Your task to perform on an android device: uninstall "AliExpress" Image 0: 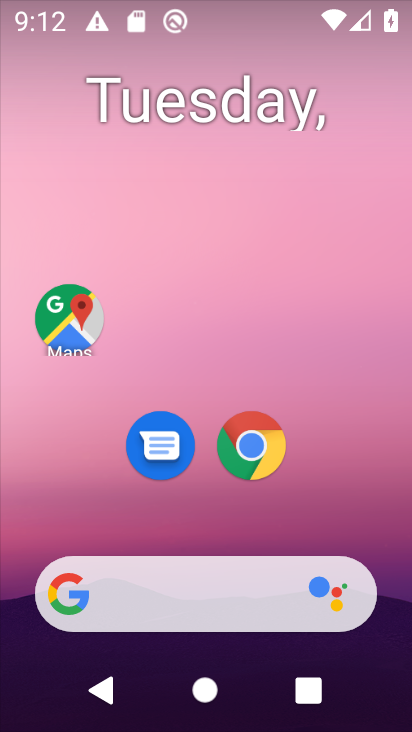
Step 0: drag from (206, 523) to (197, 191)
Your task to perform on an android device: uninstall "AliExpress" Image 1: 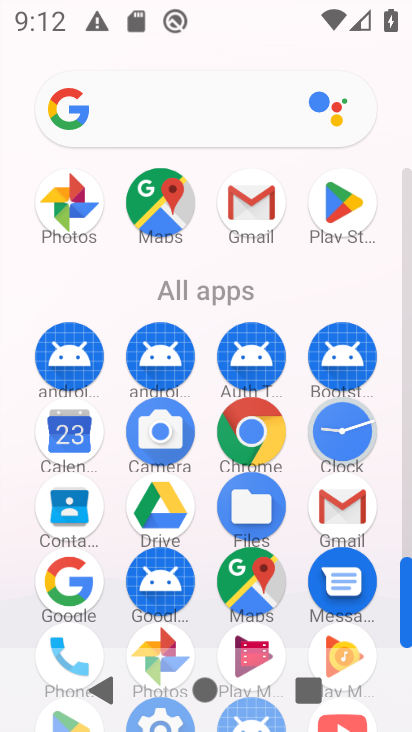
Step 1: click (335, 203)
Your task to perform on an android device: uninstall "AliExpress" Image 2: 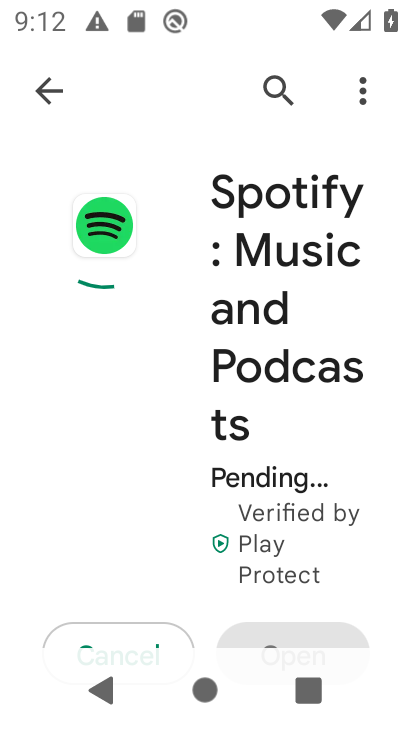
Step 2: click (58, 88)
Your task to perform on an android device: uninstall "AliExpress" Image 3: 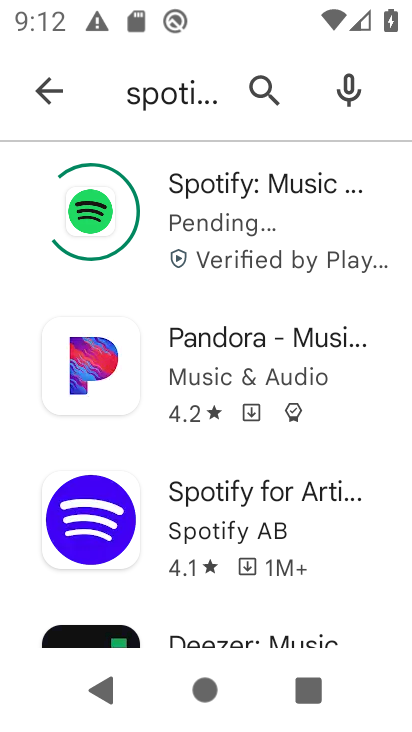
Step 3: click (58, 92)
Your task to perform on an android device: uninstall "AliExpress" Image 4: 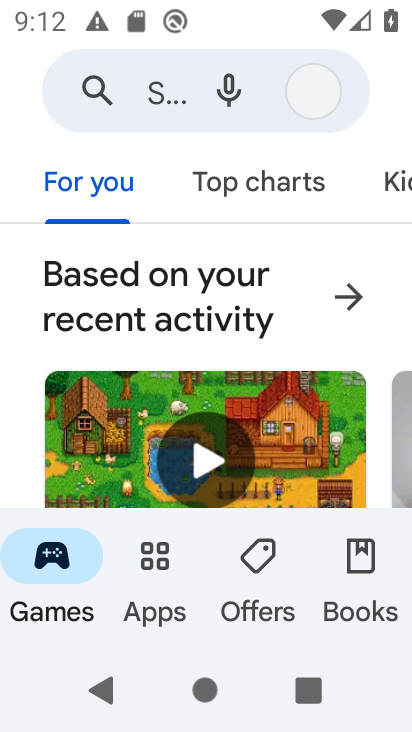
Step 4: click (109, 82)
Your task to perform on an android device: uninstall "AliExpress" Image 5: 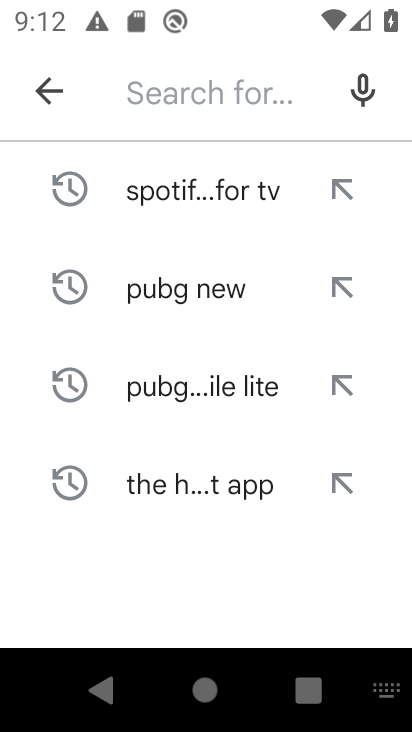
Step 5: type "AliExpress "
Your task to perform on an android device: uninstall "AliExpress" Image 6: 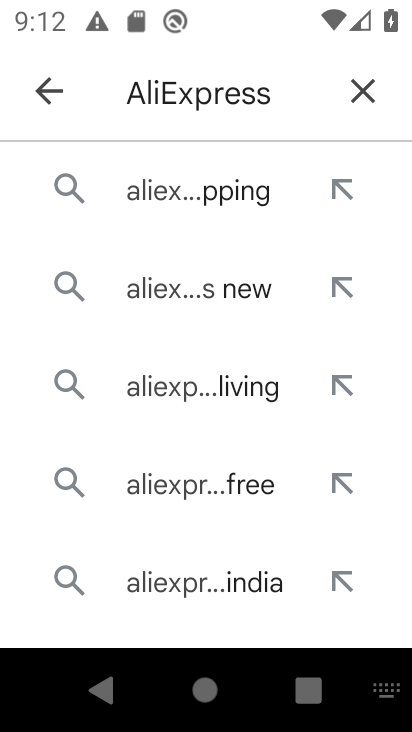
Step 6: click (158, 192)
Your task to perform on an android device: uninstall "AliExpress" Image 7: 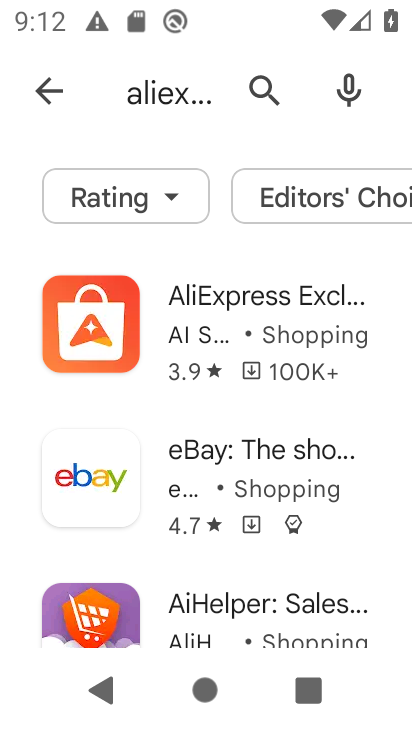
Step 7: click (181, 307)
Your task to perform on an android device: uninstall "AliExpress" Image 8: 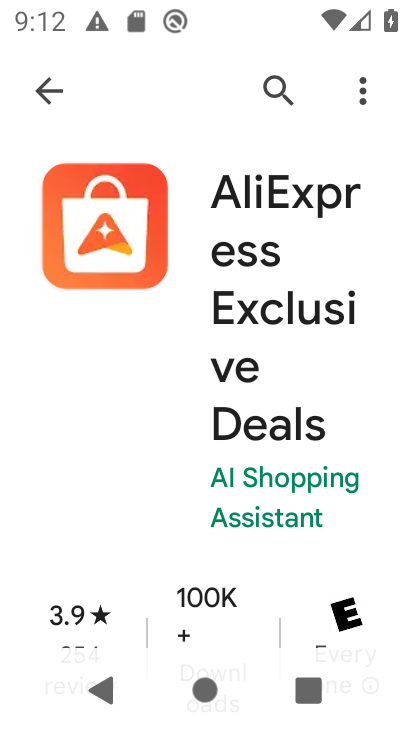
Step 8: drag from (114, 557) to (176, 161)
Your task to perform on an android device: uninstall "AliExpress" Image 9: 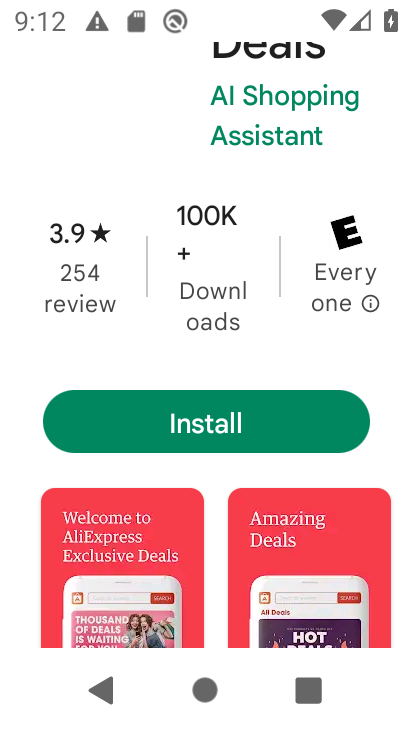
Step 9: click (173, 411)
Your task to perform on an android device: uninstall "AliExpress" Image 10: 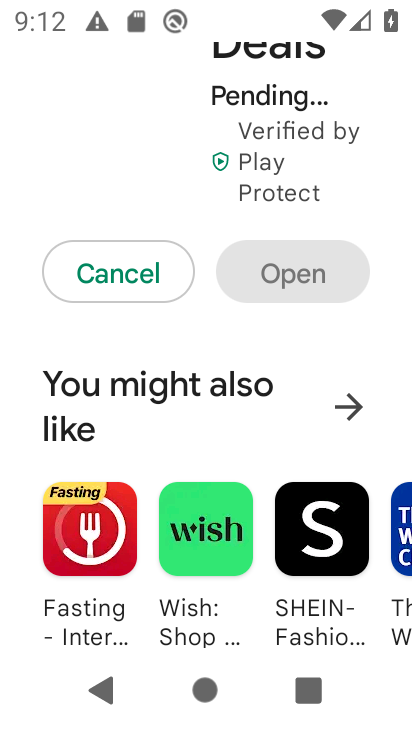
Step 10: drag from (286, 101) to (218, 572)
Your task to perform on an android device: uninstall "AliExpress" Image 11: 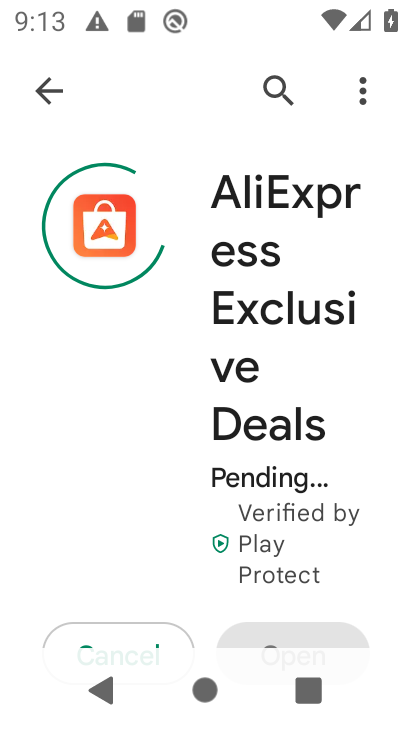
Step 11: drag from (165, 525) to (182, 251)
Your task to perform on an android device: uninstall "AliExpress" Image 12: 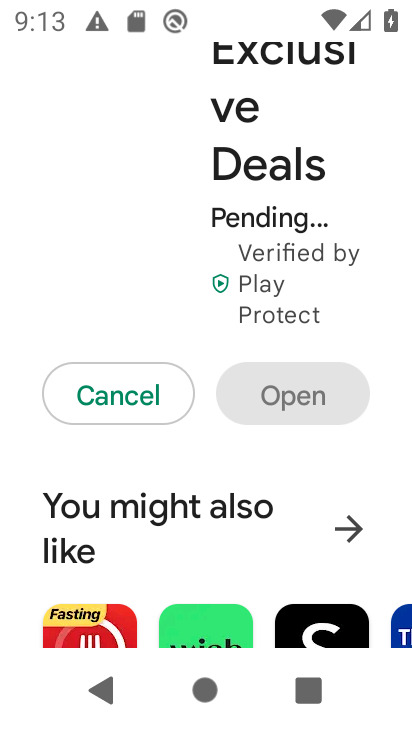
Step 12: click (118, 374)
Your task to perform on an android device: uninstall "AliExpress" Image 13: 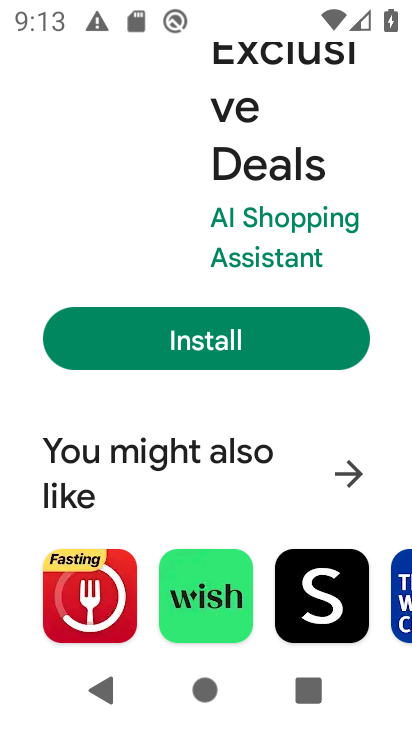
Step 13: task complete